Your task to perform on an android device: change keyboard looks Image 0: 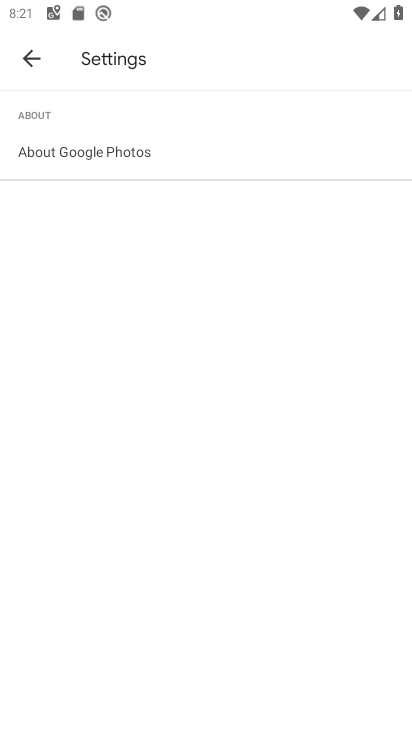
Step 0: press home button
Your task to perform on an android device: change keyboard looks Image 1: 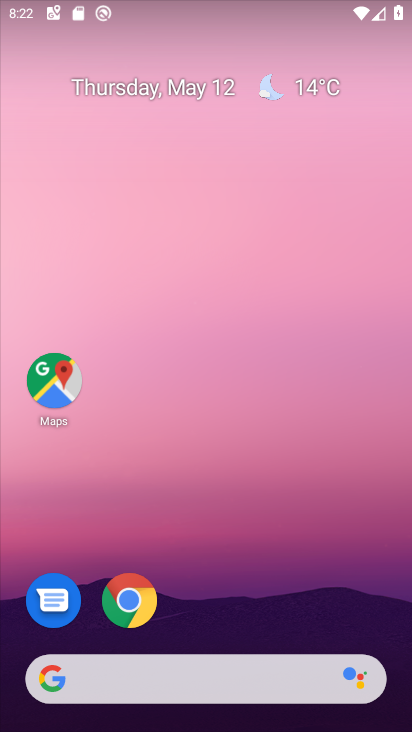
Step 1: drag from (325, 658) to (173, 165)
Your task to perform on an android device: change keyboard looks Image 2: 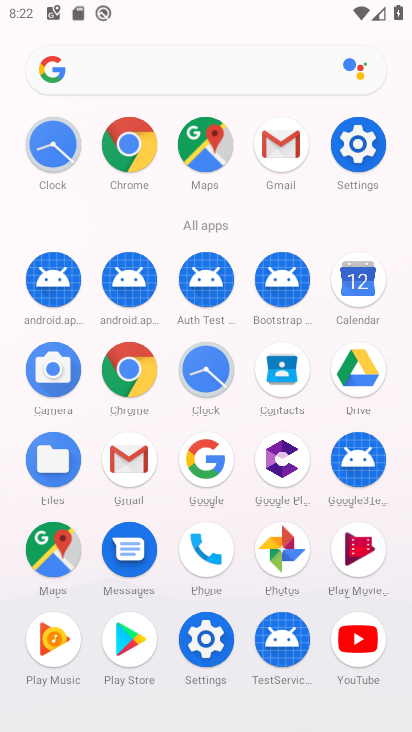
Step 2: click (356, 148)
Your task to perform on an android device: change keyboard looks Image 3: 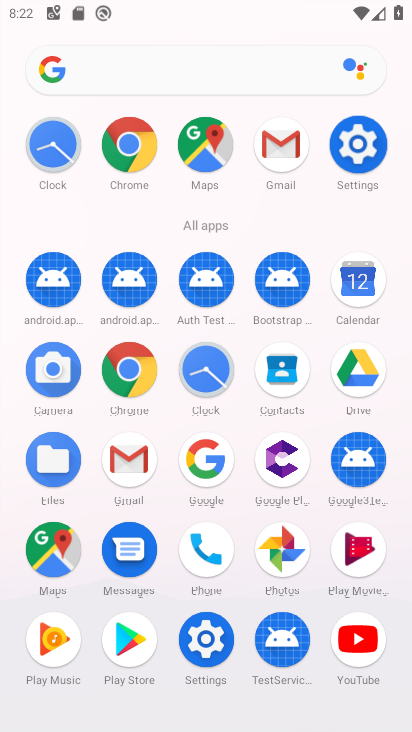
Step 3: click (356, 148)
Your task to perform on an android device: change keyboard looks Image 4: 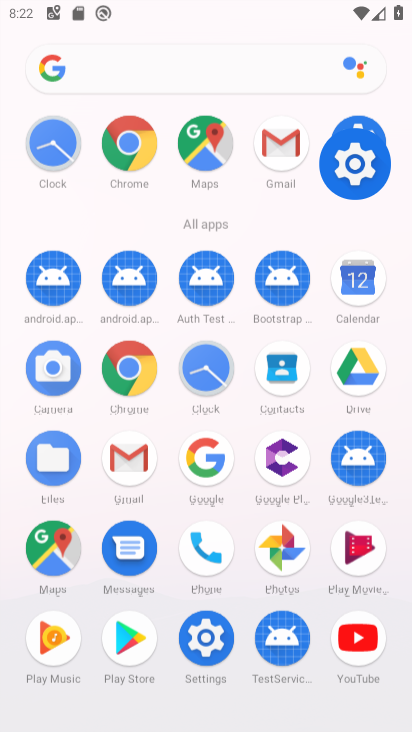
Step 4: click (360, 141)
Your task to perform on an android device: change keyboard looks Image 5: 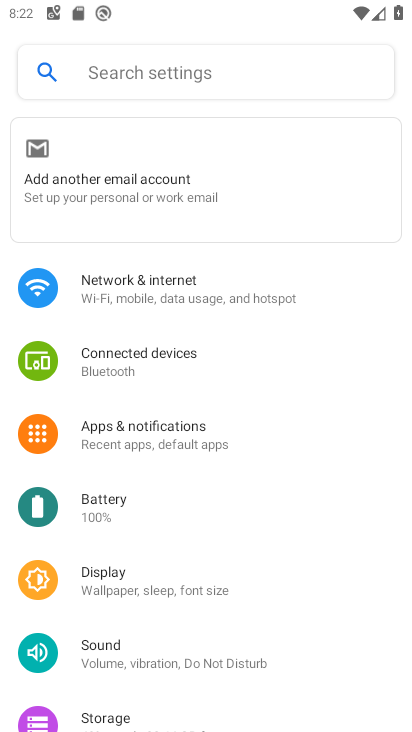
Step 5: drag from (135, 546) to (125, 75)
Your task to perform on an android device: change keyboard looks Image 6: 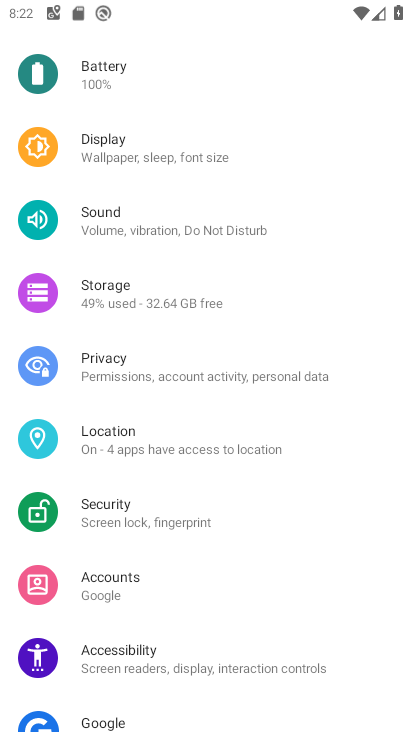
Step 6: drag from (146, 428) to (163, 89)
Your task to perform on an android device: change keyboard looks Image 7: 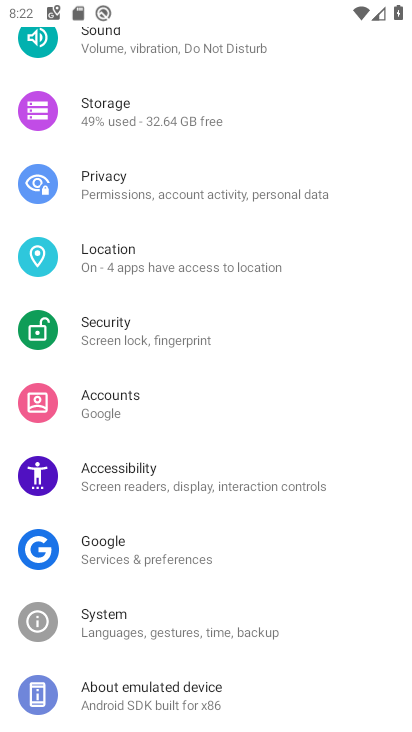
Step 7: click (117, 618)
Your task to perform on an android device: change keyboard looks Image 8: 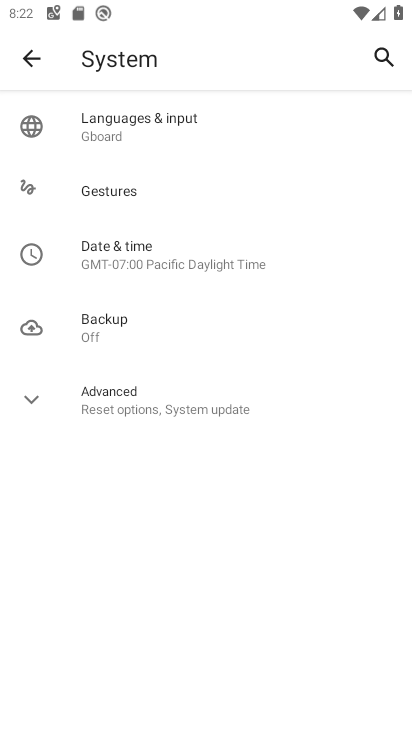
Step 8: click (97, 128)
Your task to perform on an android device: change keyboard looks Image 9: 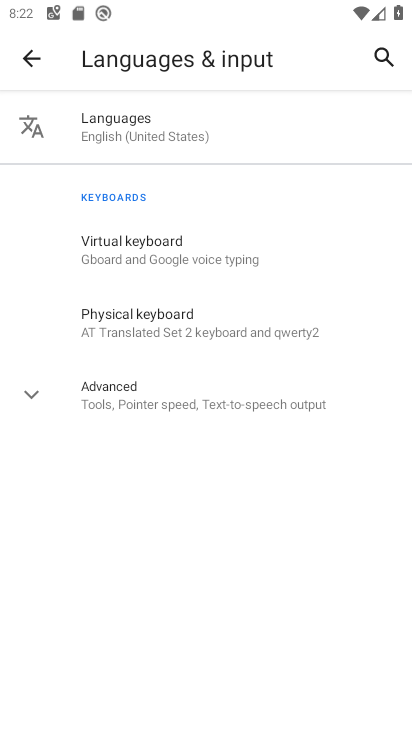
Step 9: click (119, 253)
Your task to perform on an android device: change keyboard looks Image 10: 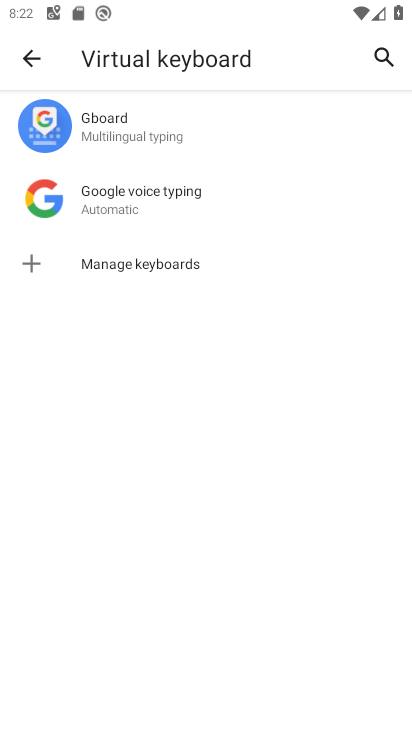
Step 10: click (122, 125)
Your task to perform on an android device: change keyboard looks Image 11: 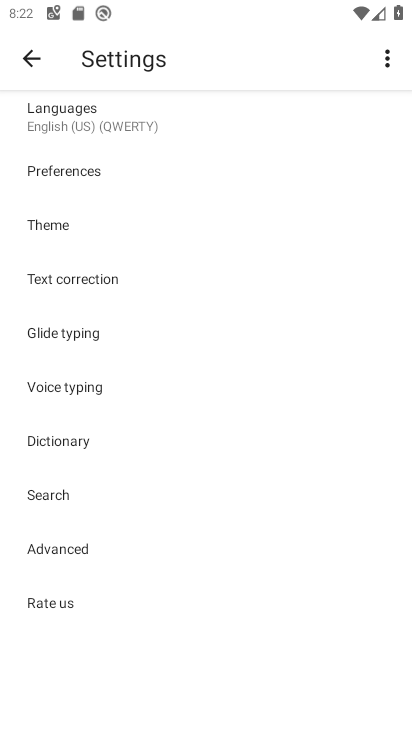
Step 11: click (48, 222)
Your task to perform on an android device: change keyboard looks Image 12: 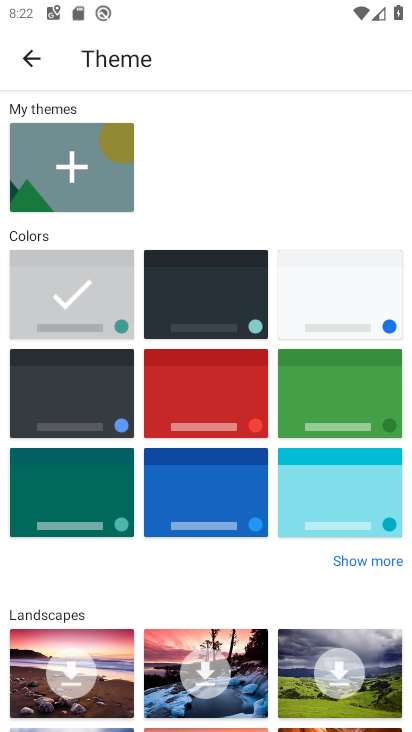
Step 12: click (92, 390)
Your task to perform on an android device: change keyboard looks Image 13: 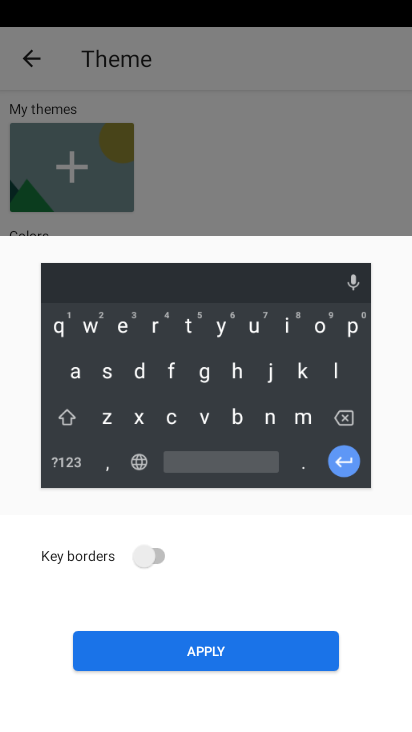
Step 13: click (232, 655)
Your task to perform on an android device: change keyboard looks Image 14: 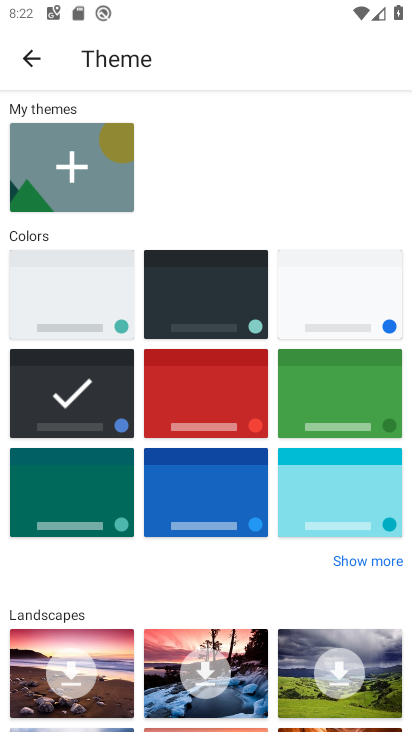
Step 14: click (88, 396)
Your task to perform on an android device: change keyboard looks Image 15: 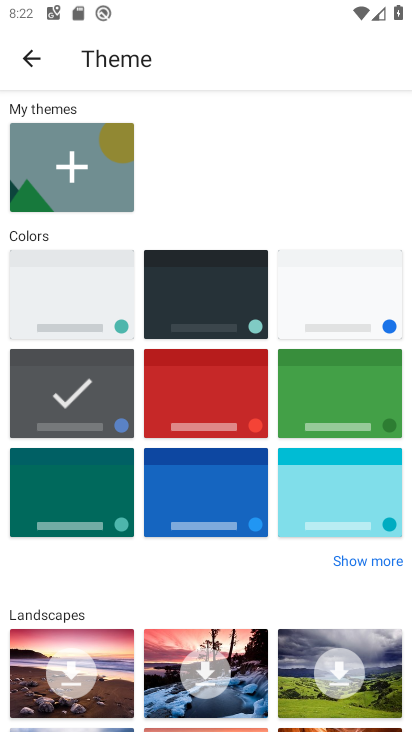
Step 15: click (87, 395)
Your task to perform on an android device: change keyboard looks Image 16: 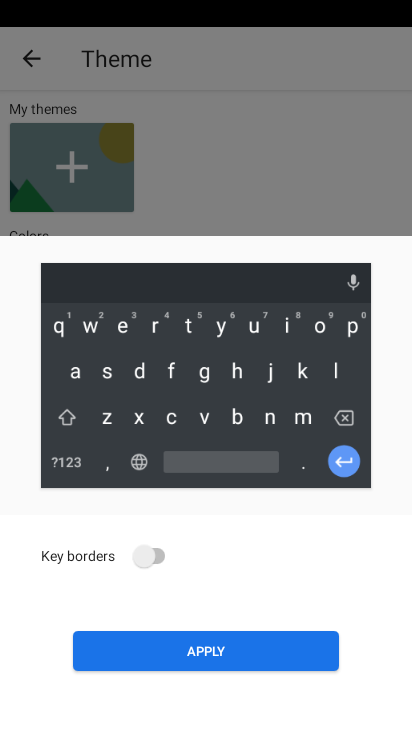
Step 16: click (215, 641)
Your task to perform on an android device: change keyboard looks Image 17: 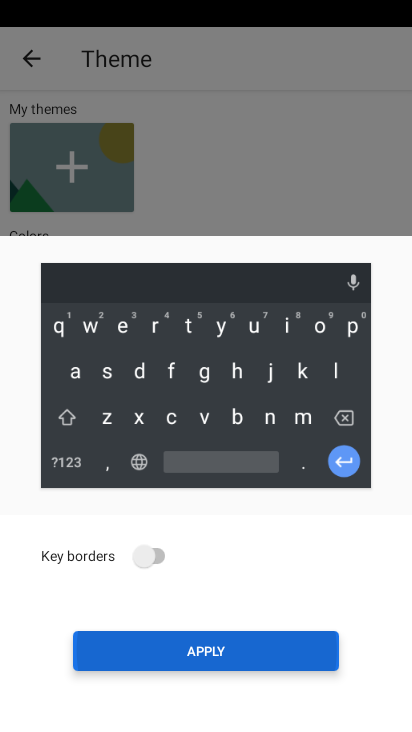
Step 17: click (216, 642)
Your task to perform on an android device: change keyboard looks Image 18: 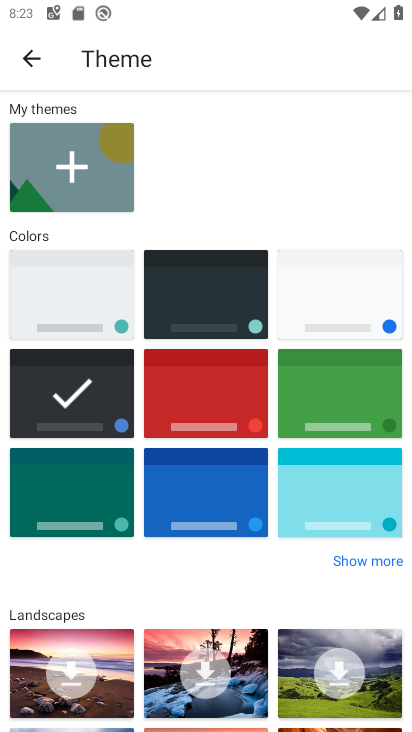
Step 18: click (216, 657)
Your task to perform on an android device: change keyboard looks Image 19: 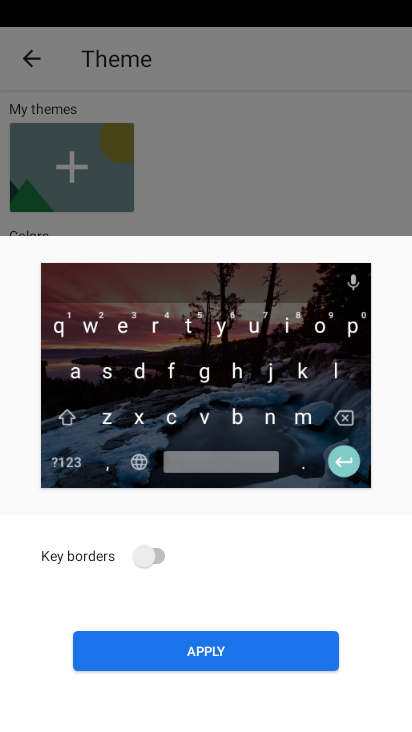
Step 19: click (213, 641)
Your task to perform on an android device: change keyboard looks Image 20: 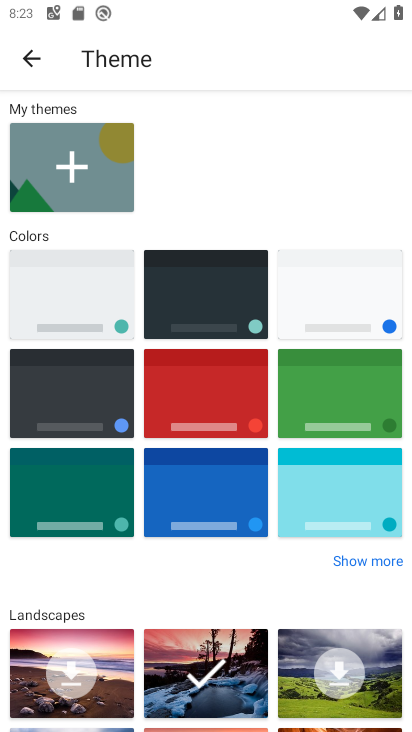
Step 20: click (211, 687)
Your task to perform on an android device: change keyboard looks Image 21: 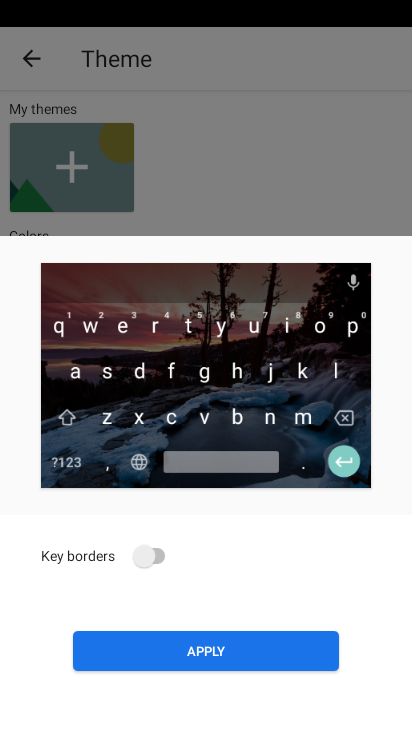
Step 21: click (202, 648)
Your task to perform on an android device: change keyboard looks Image 22: 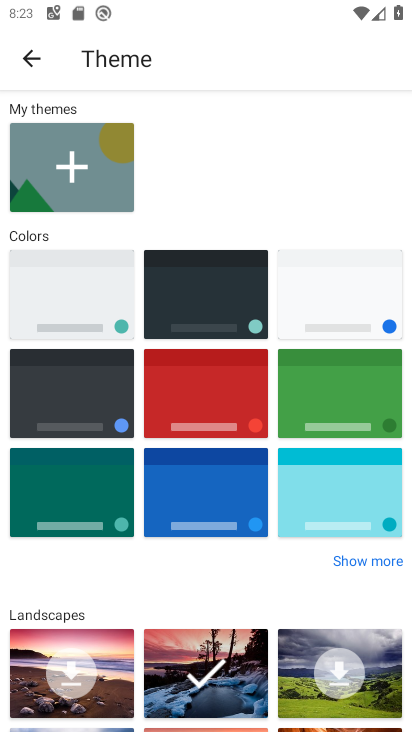
Step 22: task complete